Your task to perform on an android device: add a label to a message in the gmail app Image 0: 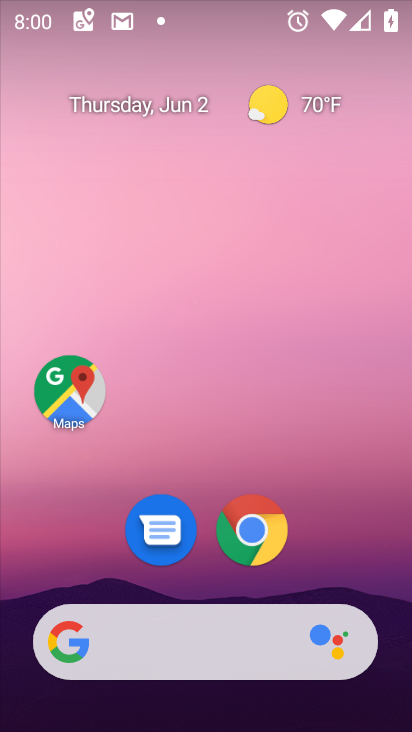
Step 0: drag from (189, 609) to (218, 268)
Your task to perform on an android device: add a label to a message in the gmail app Image 1: 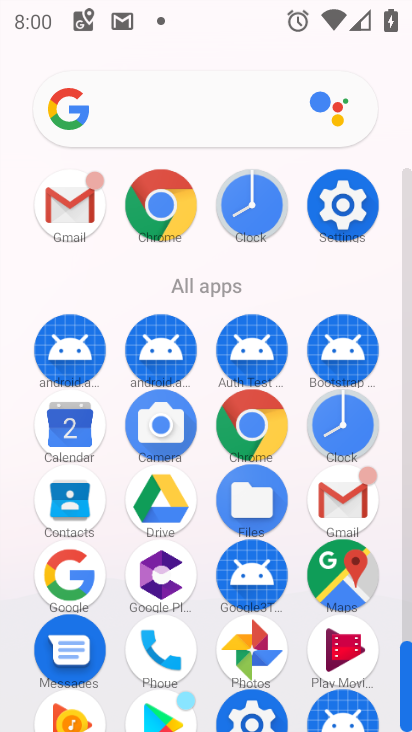
Step 1: click (73, 210)
Your task to perform on an android device: add a label to a message in the gmail app Image 2: 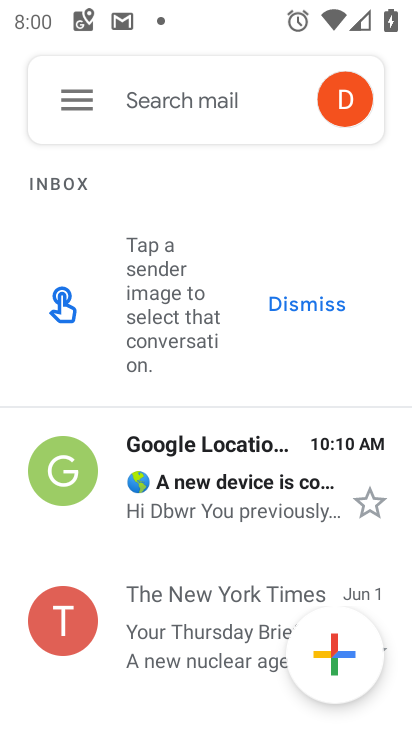
Step 2: click (201, 495)
Your task to perform on an android device: add a label to a message in the gmail app Image 3: 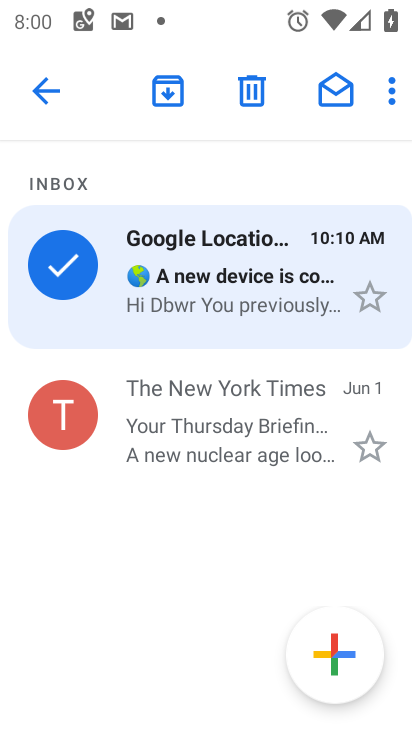
Step 3: click (387, 89)
Your task to perform on an android device: add a label to a message in the gmail app Image 4: 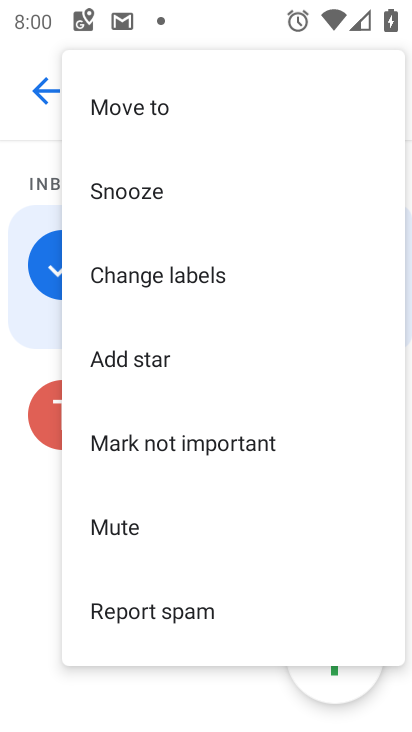
Step 4: click (123, 276)
Your task to perform on an android device: add a label to a message in the gmail app Image 5: 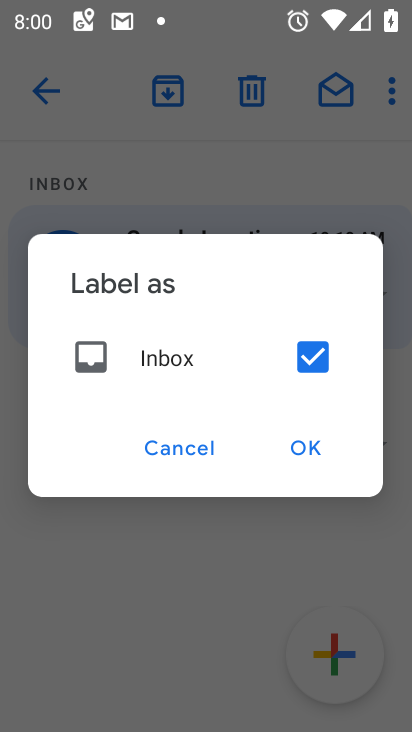
Step 5: click (306, 442)
Your task to perform on an android device: add a label to a message in the gmail app Image 6: 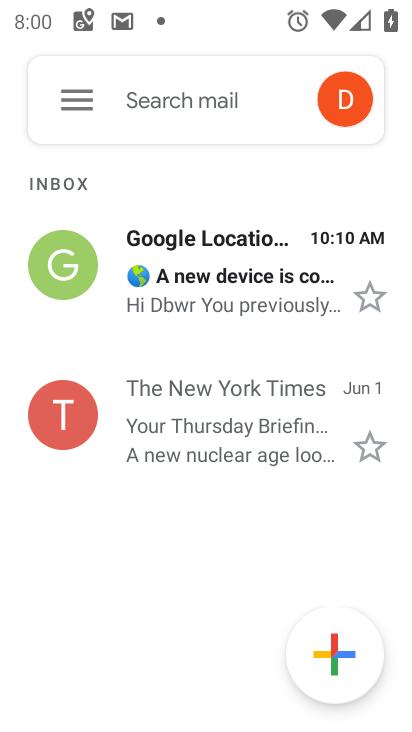
Step 6: task complete